Your task to perform on an android device: turn on improve location accuracy Image 0: 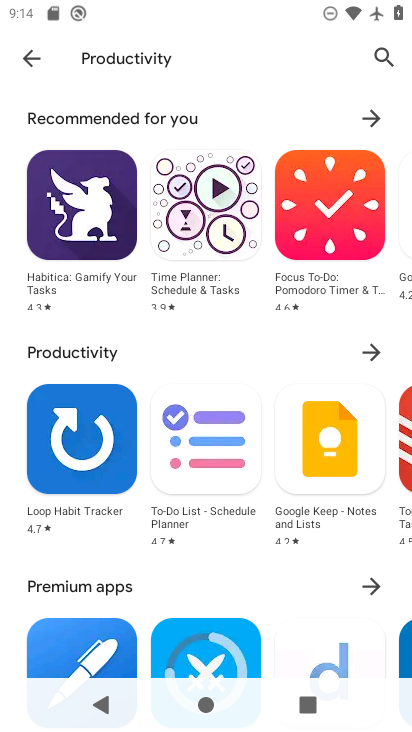
Step 0: press home button
Your task to perform on an android device: turn on improve location accuracy Image 1: 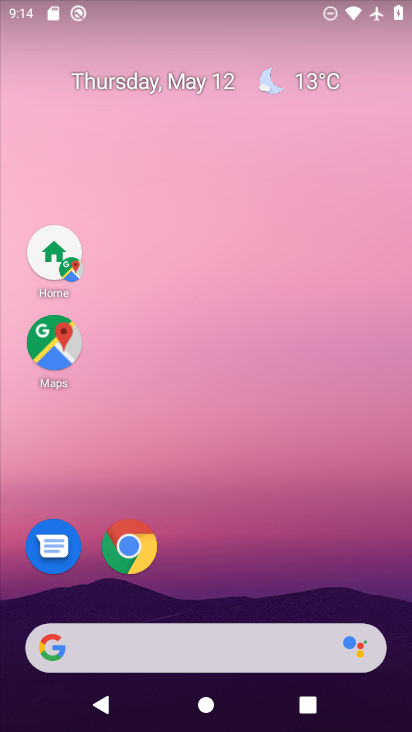
Step 1: drag from (205, 641) to (291, 30)
Your task to perform on an android device: turn on improve location accuracy Image 2: 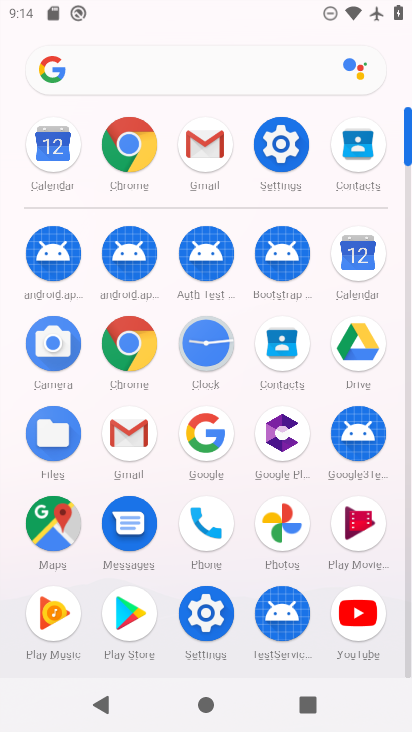
Step 2: click (281, 153)
Your task to perform on an android device: turn on improve location accuracy Image 3: 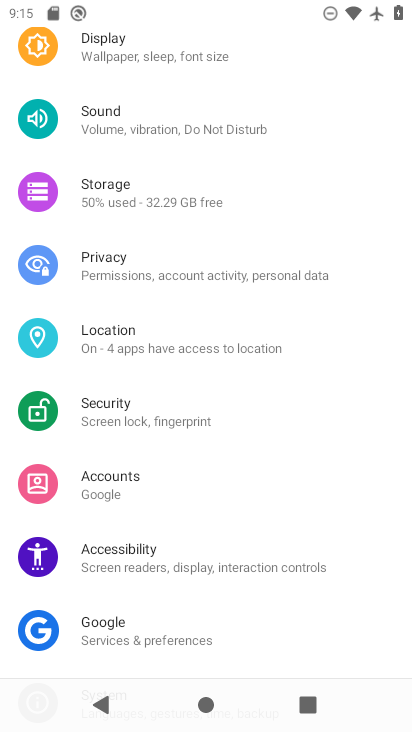
Step 3: click (147, 349)
Your task to perform on an android device: turn on improve location accuracy Image 4: 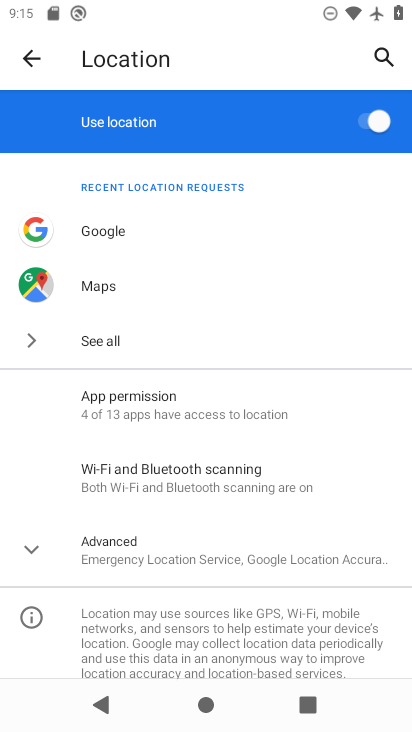
Step 4: click (157, 542)
Your task to perform on an android device: turn on improve location accuracy Image 5: 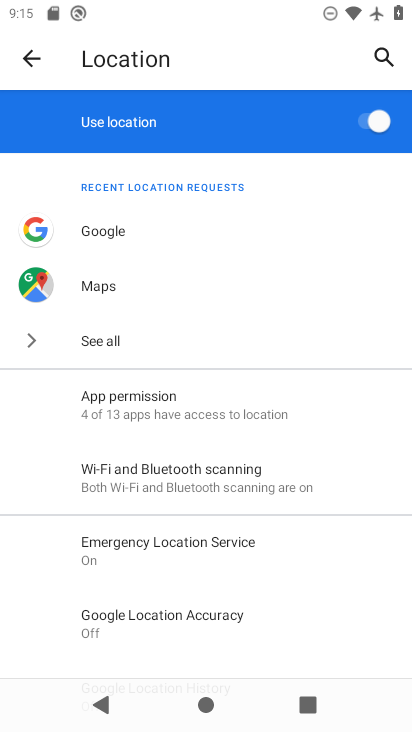
Step 5: click (147, 625)
Your task to perform on an android device: turn on improve location accuracy Image 6: 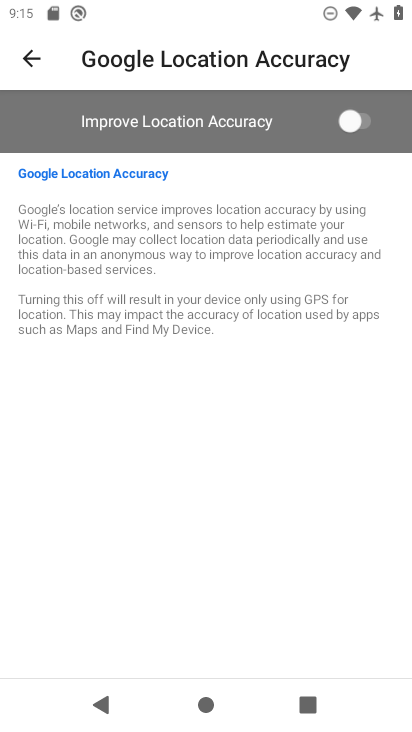
Step 6: click (361, 121)
Your task to perform on an android device: turn on improve location accuracy Image 7: 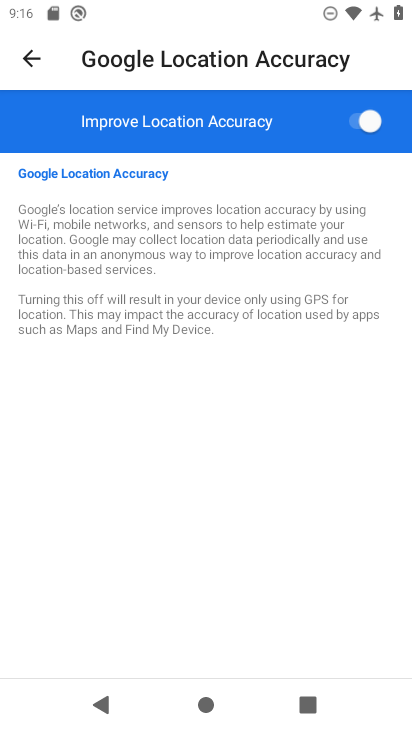
Step 7: task complete